Your task to perform on an android device: Open eBay Image 0: 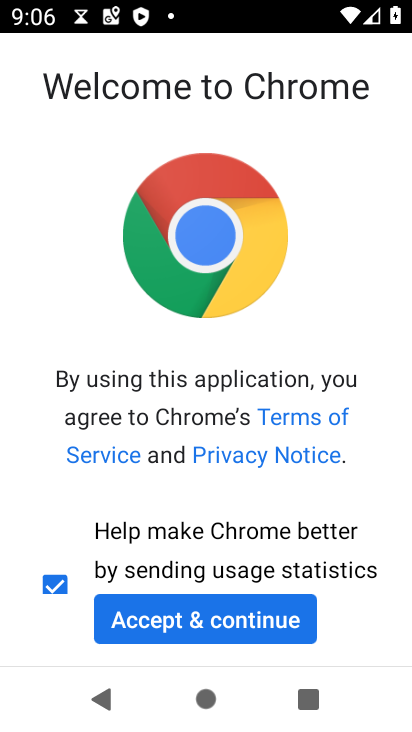
Step 0: click (177, 615)
Your task to perform on an android device: Open eBay Image 1: 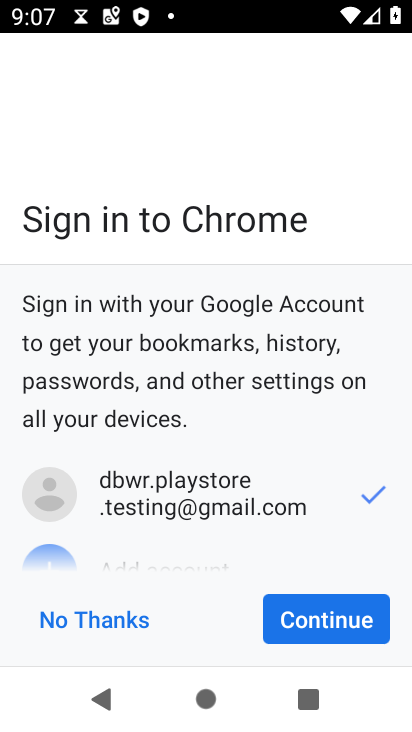
Step 1: click (314, 617)
Your task to perform on an android device: Open eBay Image 2: 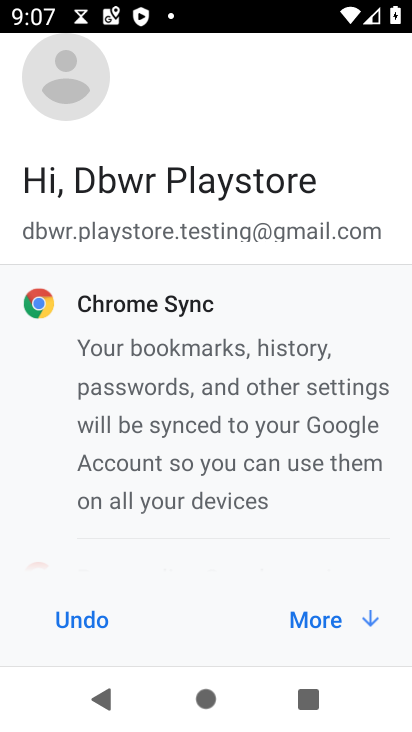
Step 2: click (320, 626)
Your task to perform on an android device: Open eBay Image 3: 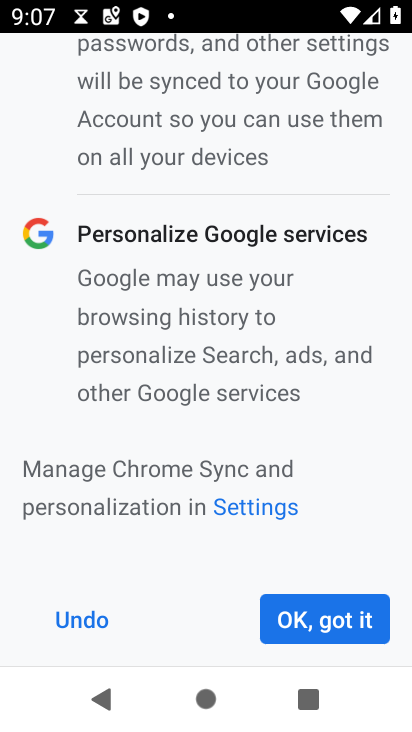
Step 3: click (324, 619)
Your task to perform on an android device: Open eBay Image 4: 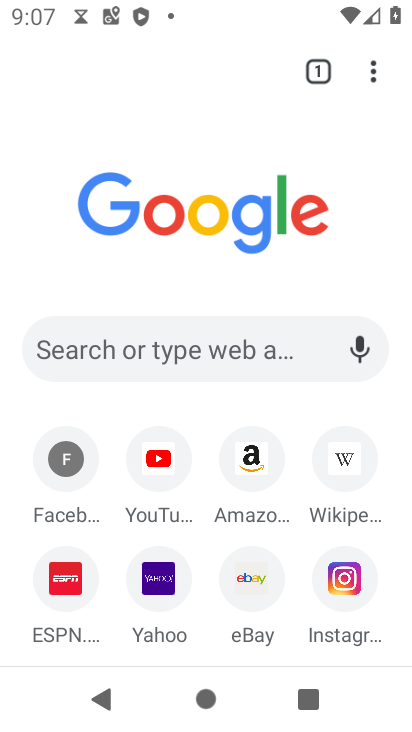
Step 4: click (225, 347)
Your task to perform on an android device: Open eBay Image 5: 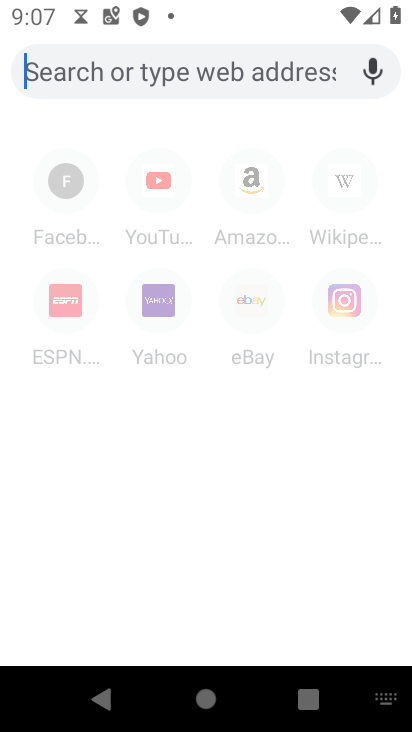
Step 5: click (246, 323)
Your task to perform on an android device: Open eBay Image 6: 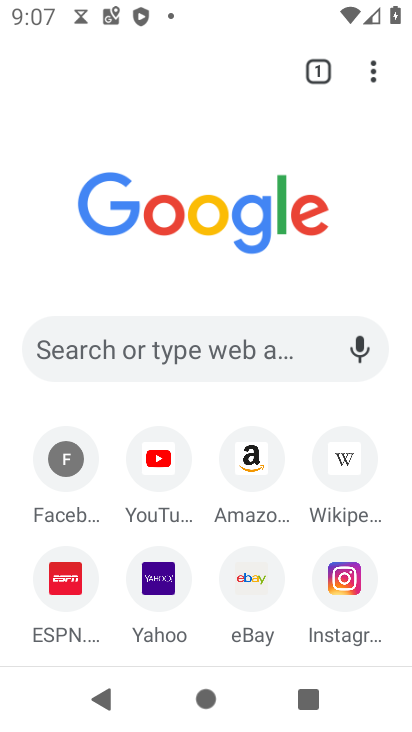
Step 6: click (240, 581)
Your task to perform on an android device: Open eBay Image 7: 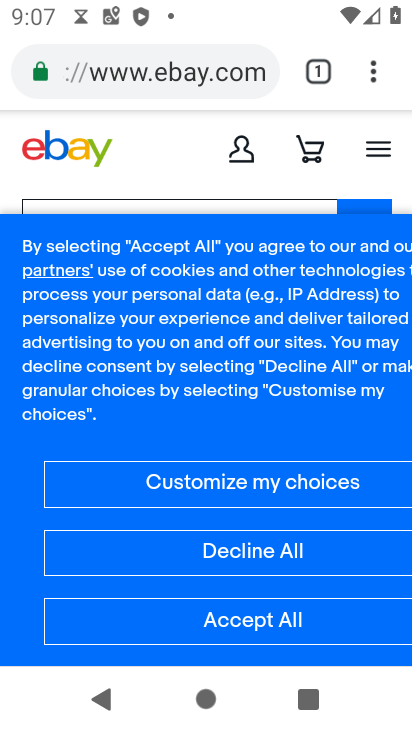
Step 7: task complete